Your task to perform on an android device: Go to wifi settings Image 0: 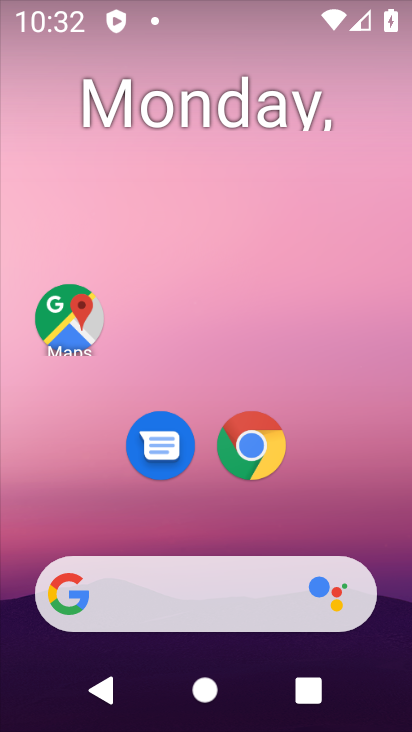
Step 0: drag from (286, 540) to (217, 89)
Your task to perform on an android device: Go to wifi settings Image 1: 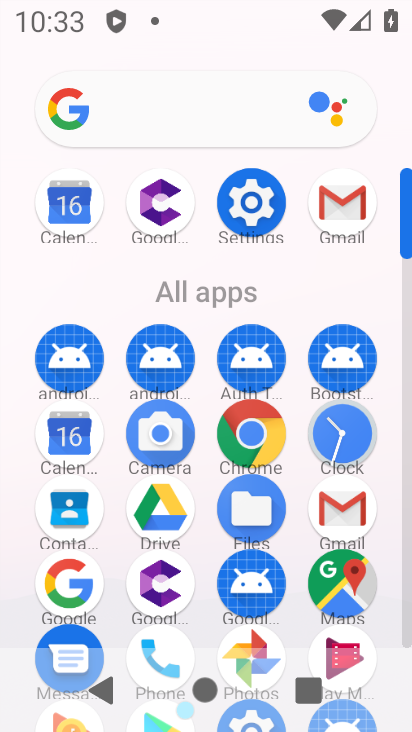
Step 1: click (263, 213)
Your task to perform on an android device: Go to wifi settings Image 2: 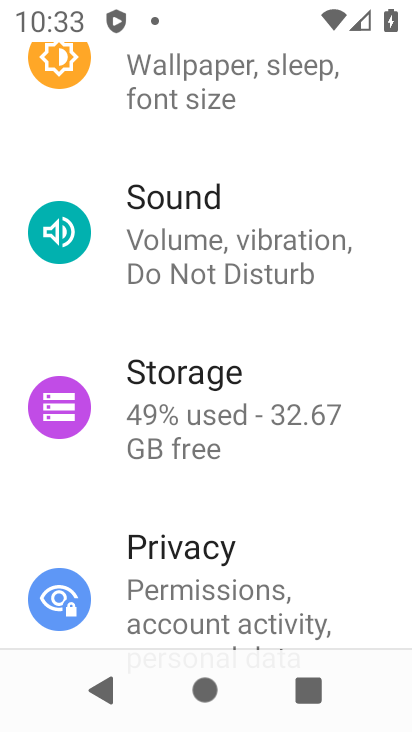
Step 2: drag from (315, 127) to (295, 595)
Your task to perform on an android device: Go to wifi settings Image 3: 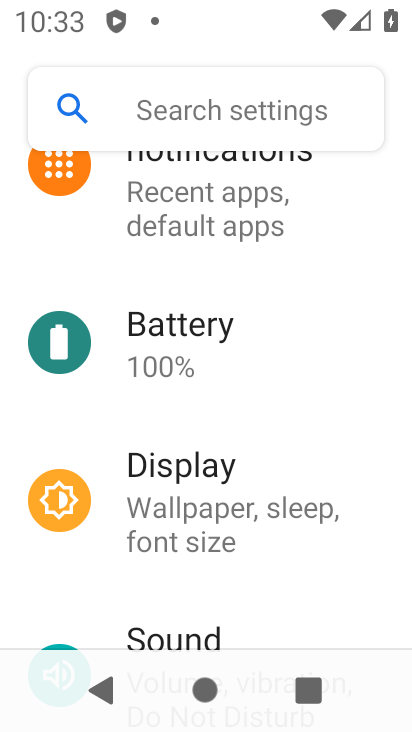
Step 3: drag from (349, 247) to (309, 621)
Your task to perform on an android device: Go to wifi settings Image 4: 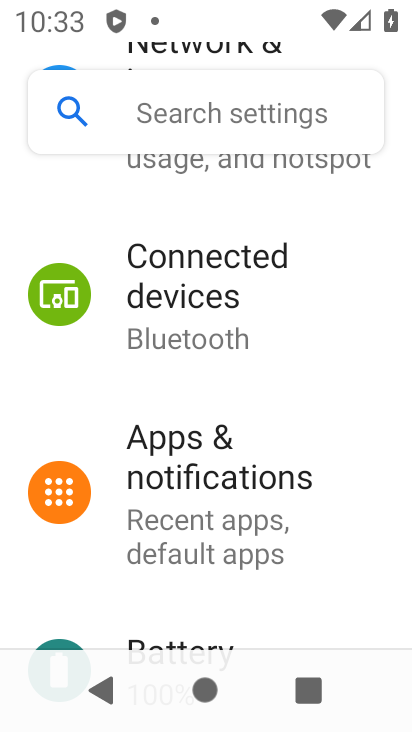
Step 4: drag from (332, 269) to (336, 527)
Your task to perform on an android device: Go to wifi settings Image 5: 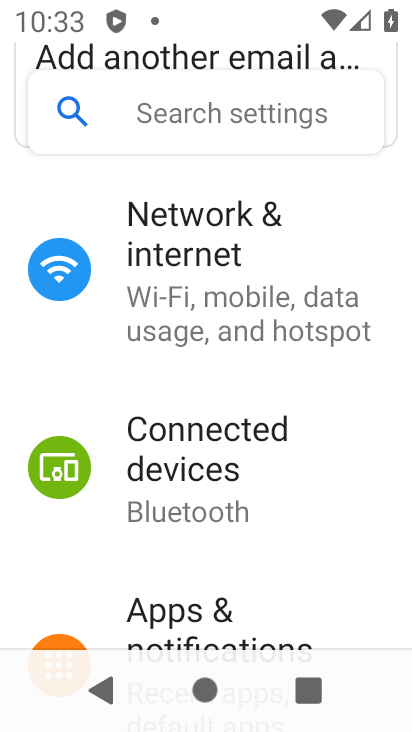
Step 5: click (228, 340)
Your task to perform on an android device: Go to wifi settings Image 6: 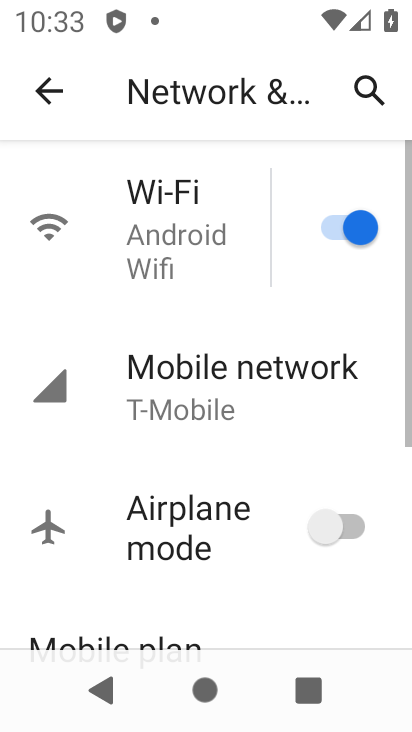
Step 6: click (163, 247)
Your task to perform on an android device: Go to wifi settings Image 7: 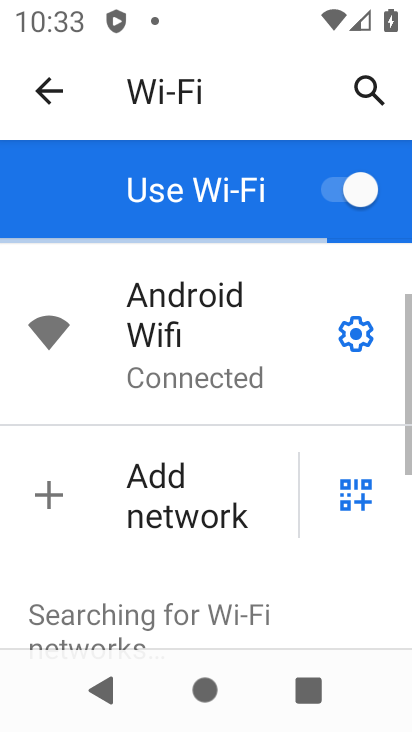
Step 7: task complete